Your task to perform on an android device: turn on data saver in the chrome app Image 0: 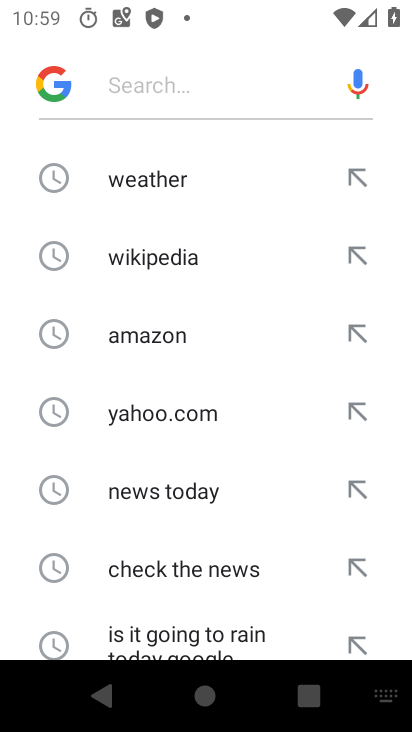
Step 0: press home button
Your task to perform on an android device: turn on data saver in the chrome app Image 1: 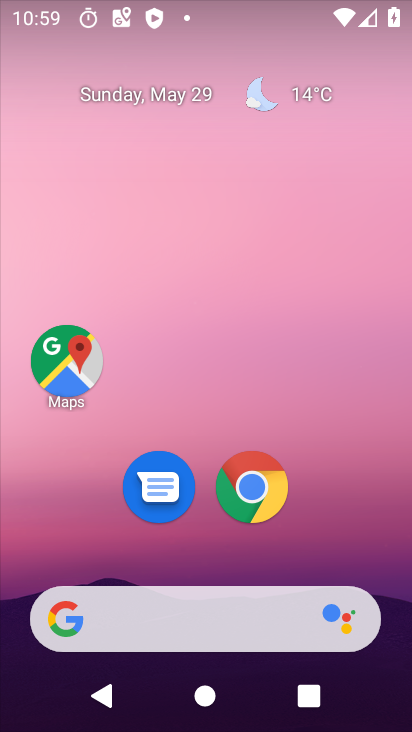
Step 1: click (240, 484)
Your task to perform on an android device: turn on data saver in the chrome app Image 2: 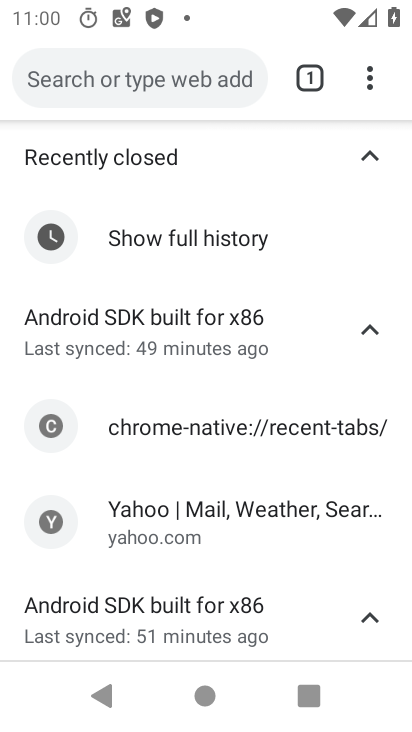
Step 2: click (364, 100)
Your task to perform on an android device: turn on data saver in the chrome app Image 3: 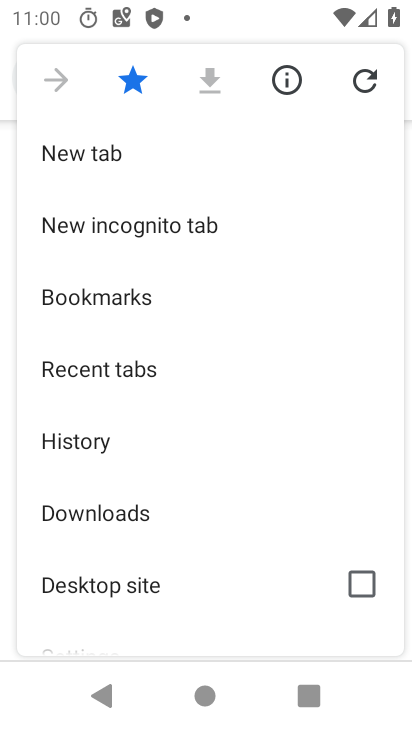
Step 3: drag from (217, 579) to (217, 313)
Your task to perform on an android device: turn on data saver in the chrome app Image 4: 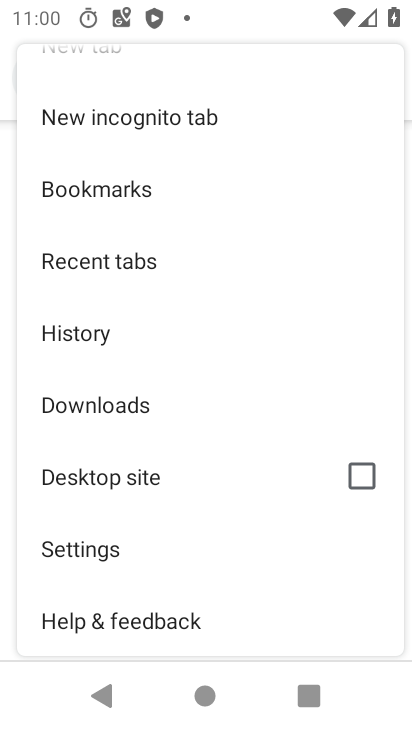
Step 4: click (100, 551)
Your task to perform on an android device: turn on data saver in the chrome app Image 5: 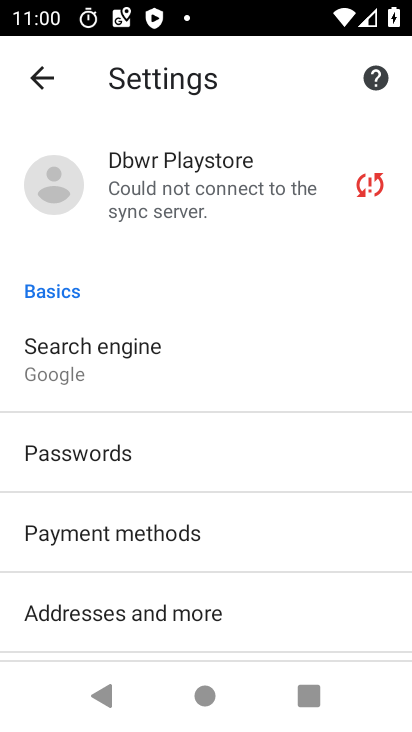
Step 5: drag from (317, 634) to (289, 250)
Your task to perform on an android device: turn on data saver in the chrome app Image 6: 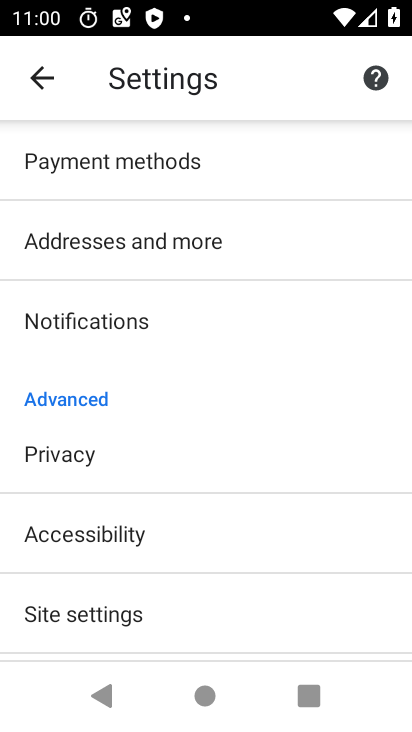
Step 6: drag from (253, 605) to (238, 269)
Your task to perform on an android device: turn on data saver in the chrome app Image 7: 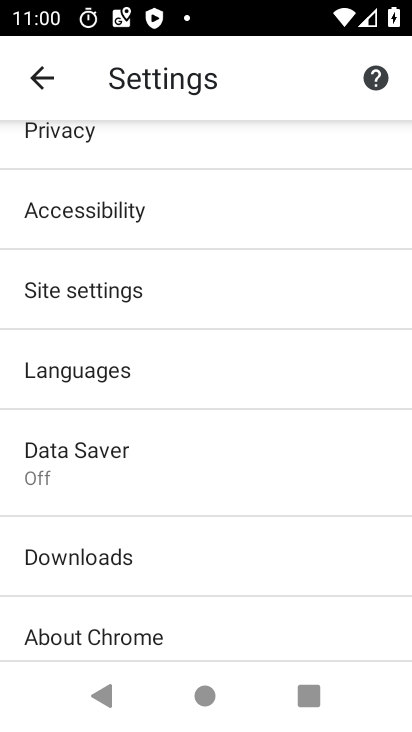
Step 7: click (64, 456)
Your task to perform on an android device: turn on data saver in the chrome app Image 8: 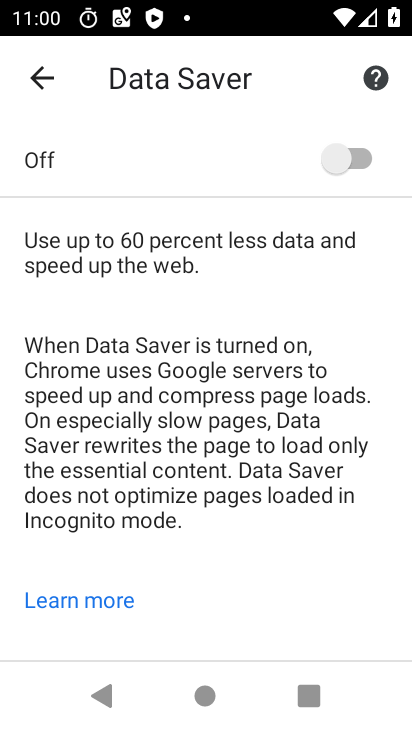
Step 8: drag from (237, 619) to (255, 391)
Your task to perform on an android device: turn on data saver in the chrome app Image 9: 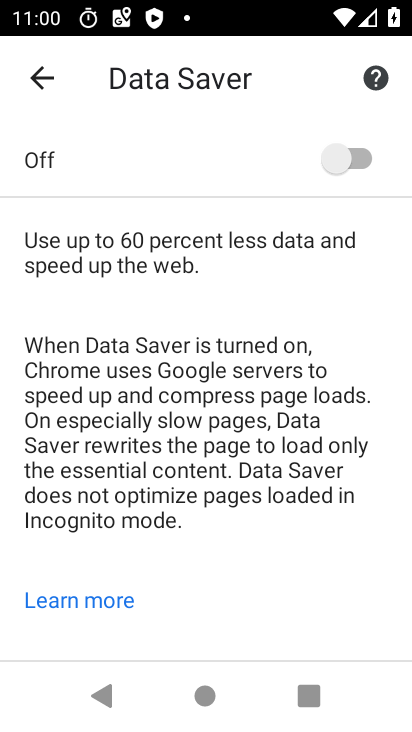
Step 9: click (366, 157)
Your task to perform on an android device: turn on data saver in the chrome app Image 10: 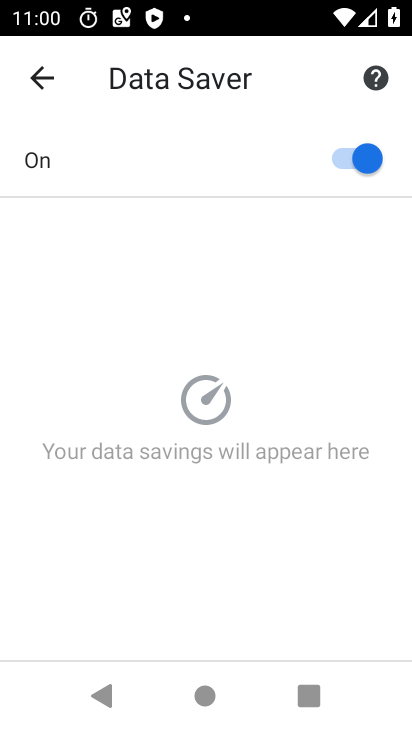
Step 10: task complete